Your task to perform on an android device: Open Google Maps Image 0: 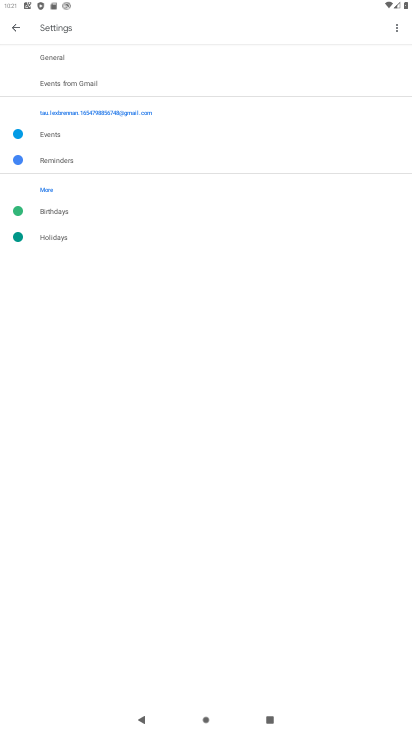
Step 0: press home button
Your task to perform on an android device: Open Google Maps Image 1: 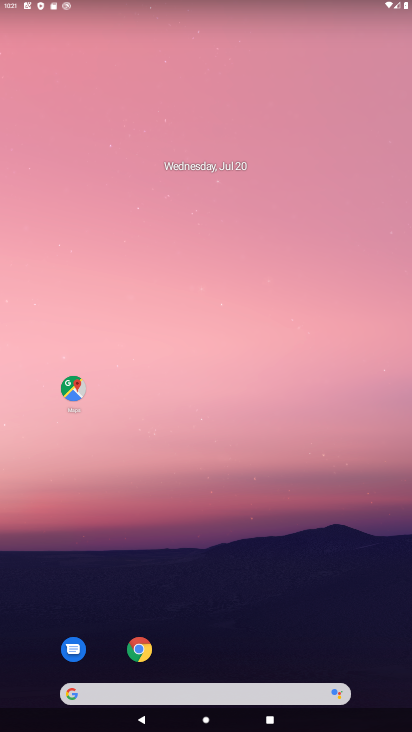
Step 1: click (70, 395)
Your task to perform on an android device: Open Google Maps Image 2: 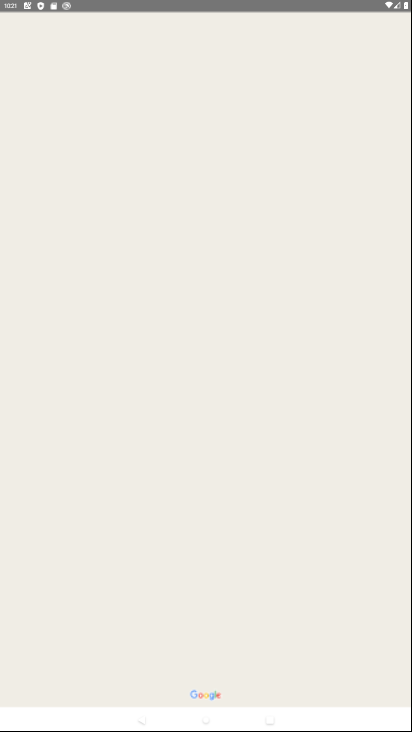
Step 2: task complete